Your task to perform on an android device: Go to Yahoo.com Image 0: 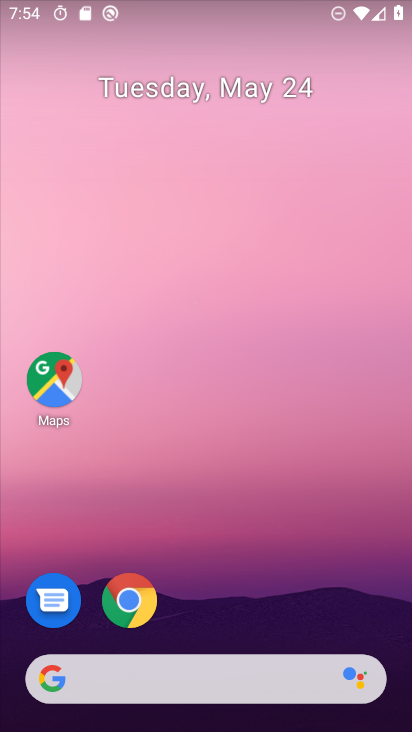
Step 0: click (136, 586)
Your task to perform on an android device: Go to Yahoo.com Image 1: 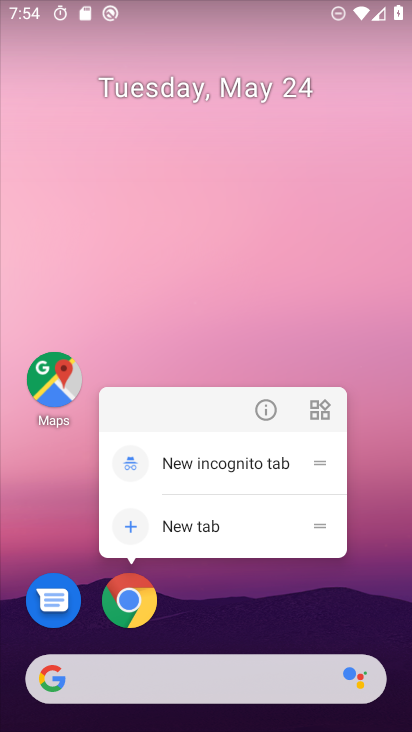
Step 1: click (126, 602)
Your task to perform on an android device: Go to Yahoo.com Image 2: 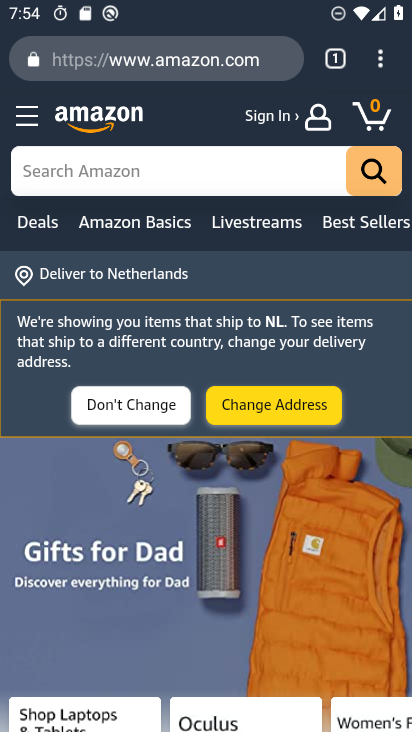
Step 2: click (332, 56)
Your task to perform on an android device: Go to Yahoo.com Image 3: 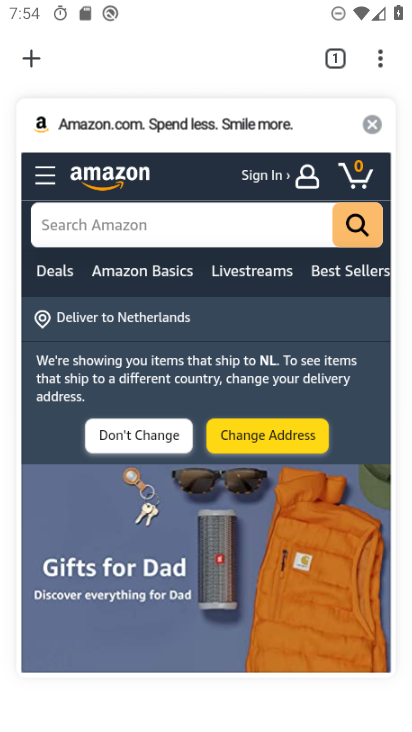
Step 3: click (29, 53)
Your task to perform on an android device: Go to Yahoo.com Image 4: 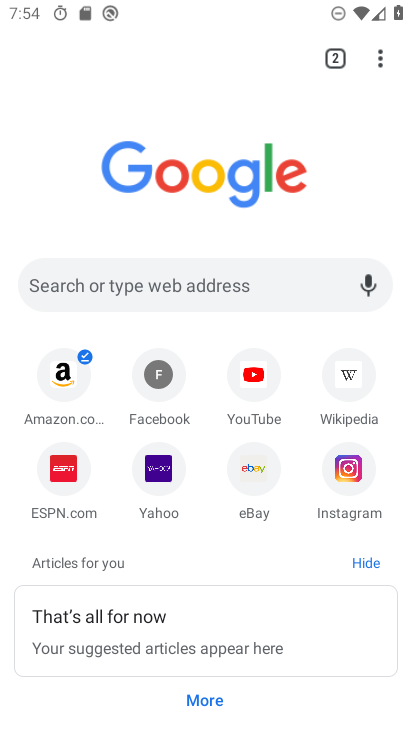
Step 4: click (161, 479)
Your task to perform on an android device: Go to Yahoo.com Image 5: 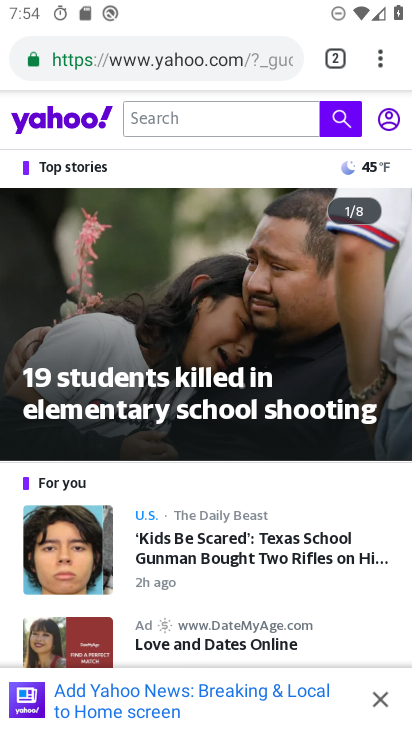
Step 5: task complete